Your task to perform on an android device: Open Google Maps Image 0: 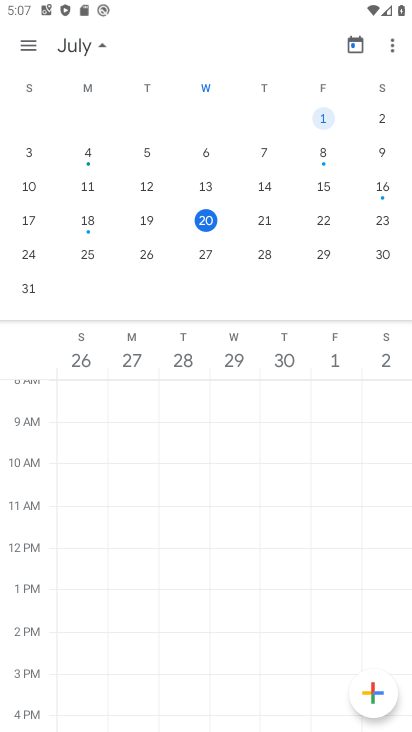
Step 0: press home button
Your task to perform on an android device: Open Google Maps Image 1: 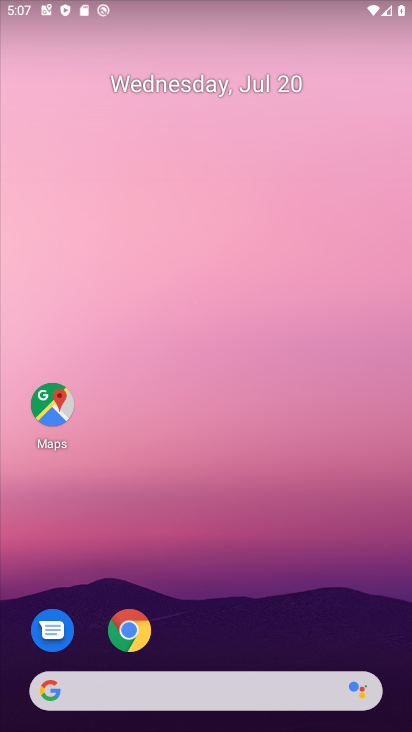
Step 1: drag from (245, 626) to (275, 4)
Your task to perform on an android device: Open Google Maps Image 2: 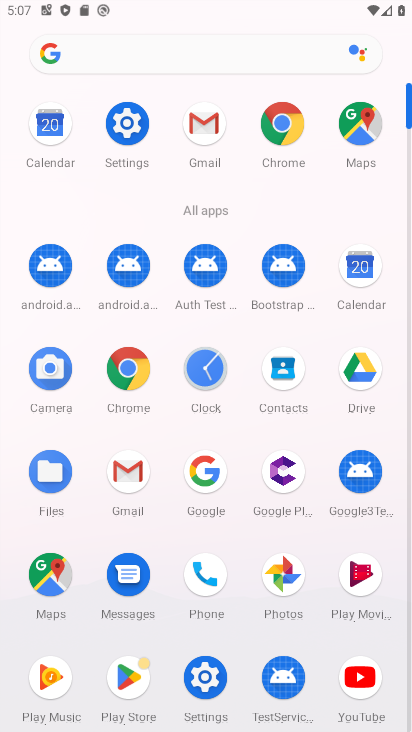
Step 2: click (52, 575)
Your task to perform on an android device: Open Google Maps Image 3: 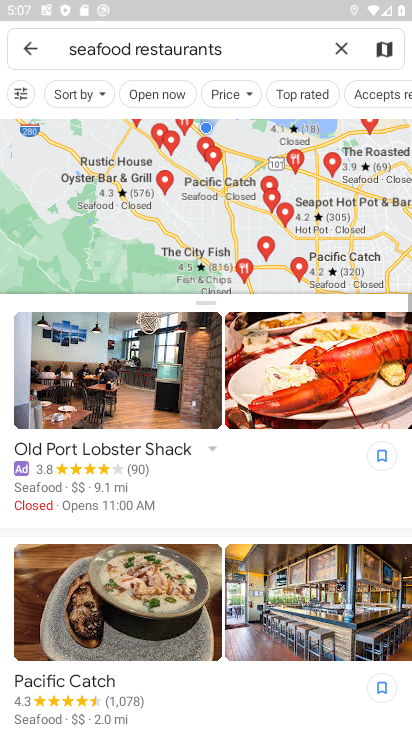
Step 3: task complete